Your task to perform on an android device: open the mobile data screen to see how much data has been used Image 0: 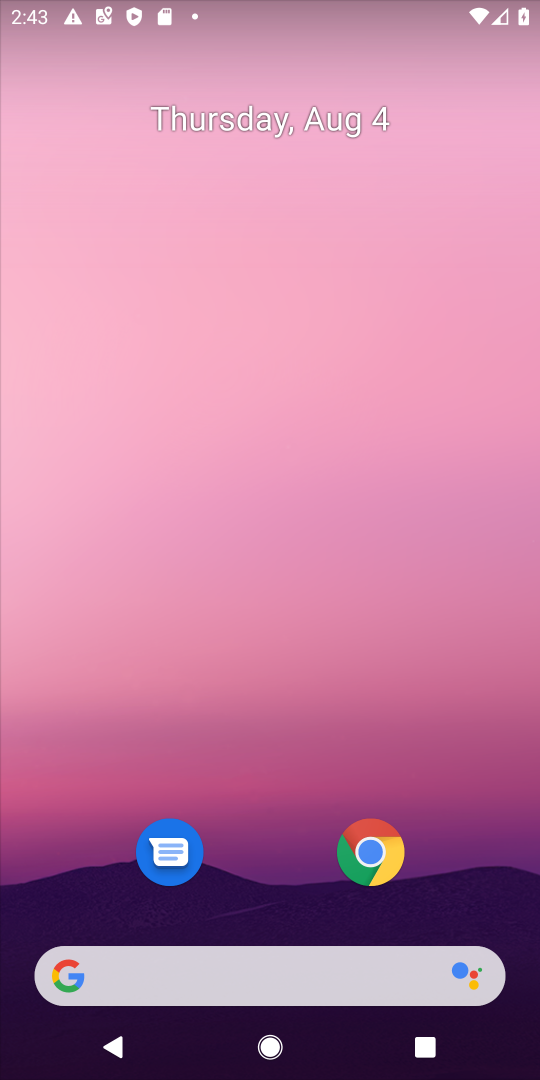
Step 0: drag from (279, 823) to (409, 64)
Your task to perform on an android device: open the mobile data screen to see how much data has been used Image 1: 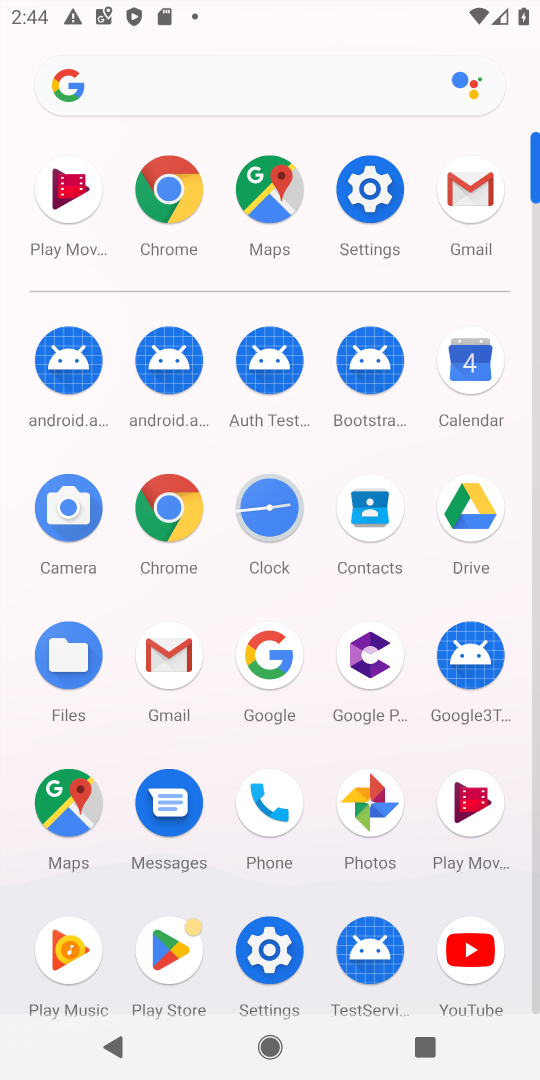
Step 1: click (359, 193)
Your task to perform on an android device: open the mobile data screen to see how much data has been used Image 2: 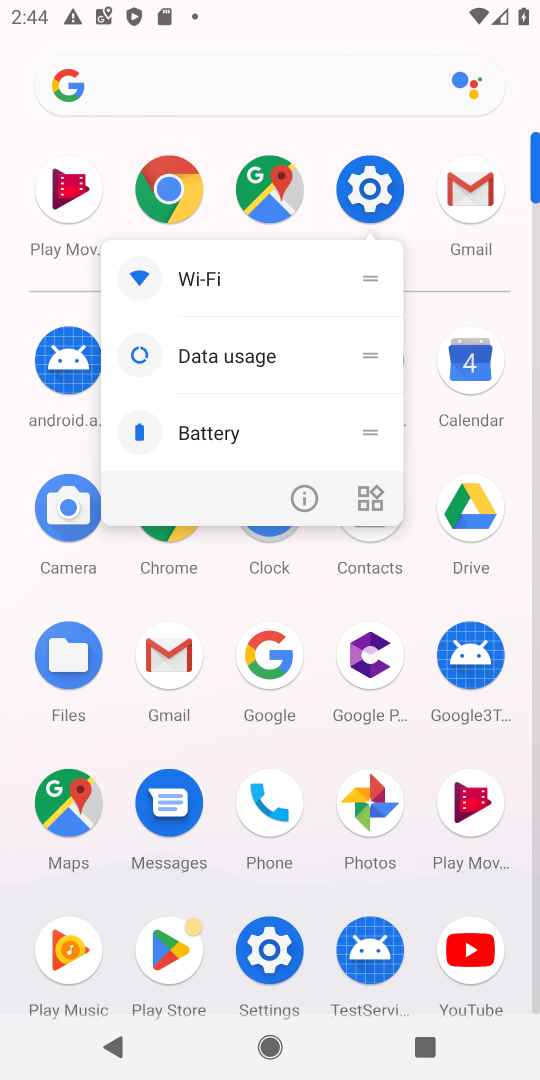
Step 2: click (373, 180)
Your task to perform on an android device: open the mobile data screen to see how much data has been used Image 3: 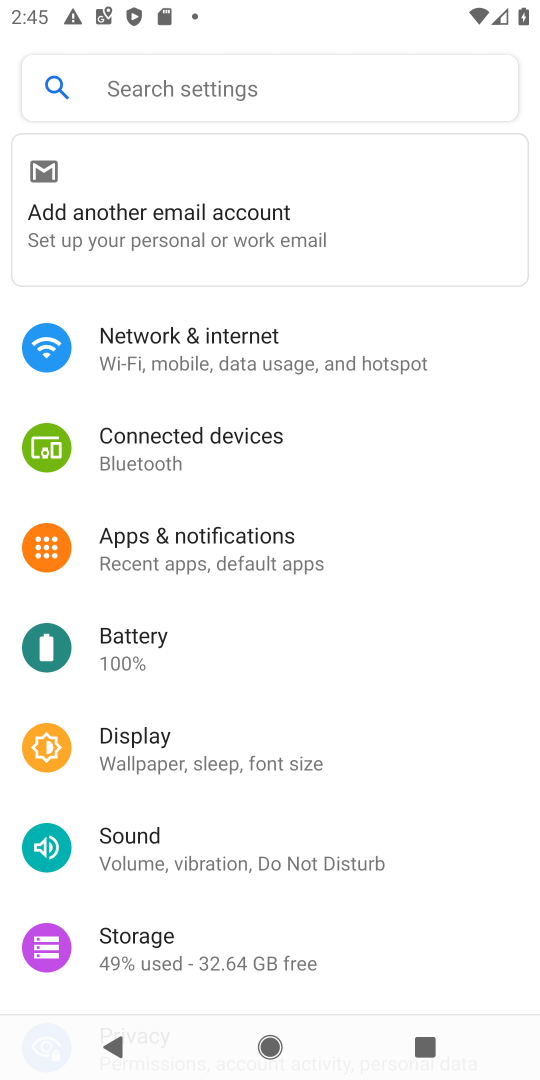
Step 3: click (223, 352)
Your task to perform on an android device: open the mobile data screen to see how much data has been used Image 4: 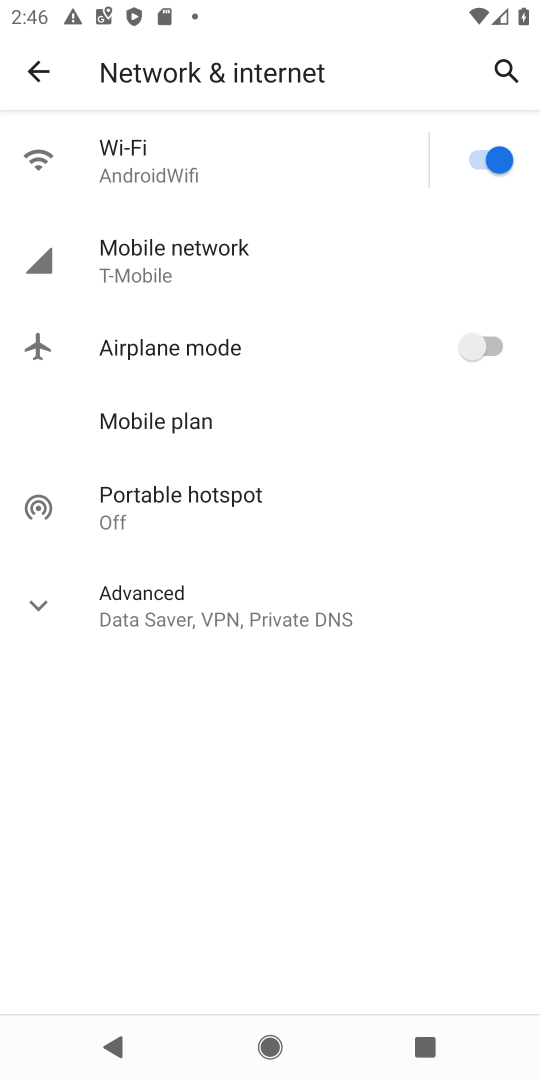
Step 4: click (202, 617)
Your task to perform on an android device: open the mobile data screen to see how much data has been used Image 5: 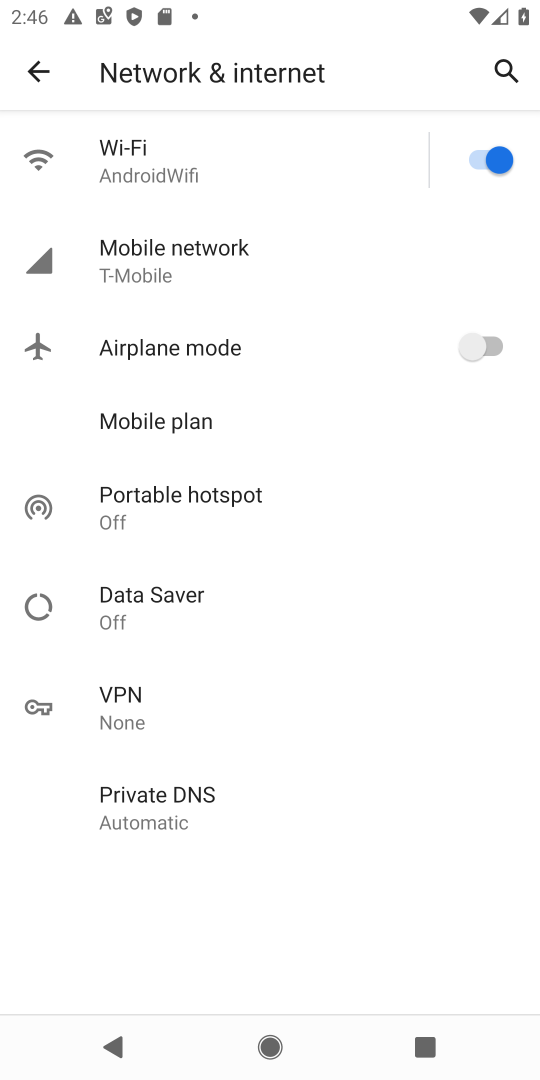
Step 5: click (157, 256)
Your task to perform on an android device: open the mobile data screen to see how much data has been used Image 6: 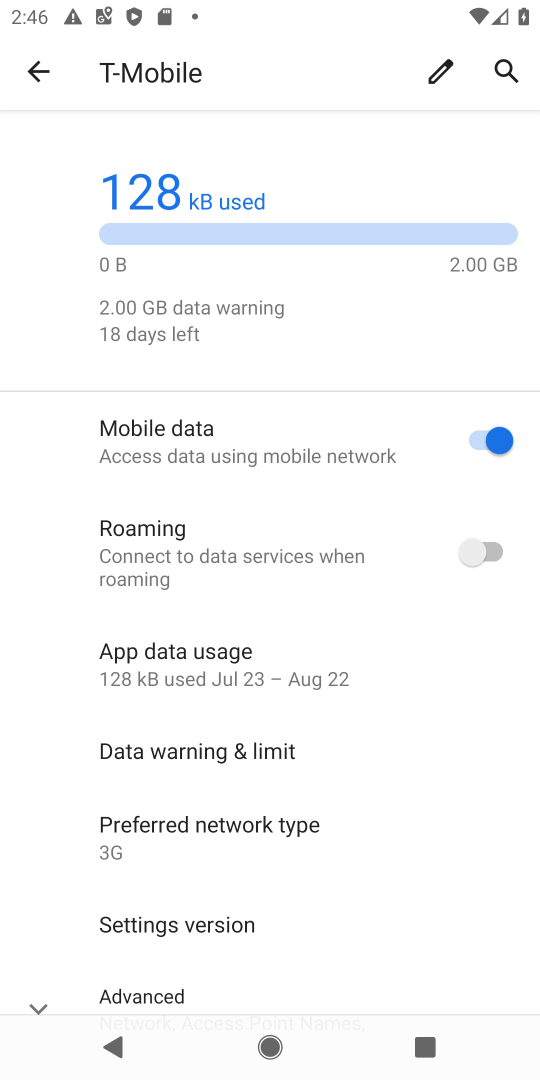
Step 6: click (241, 652)
Your task to perform on an android device: open the mobile data screen to see how much data has been used Image 7: 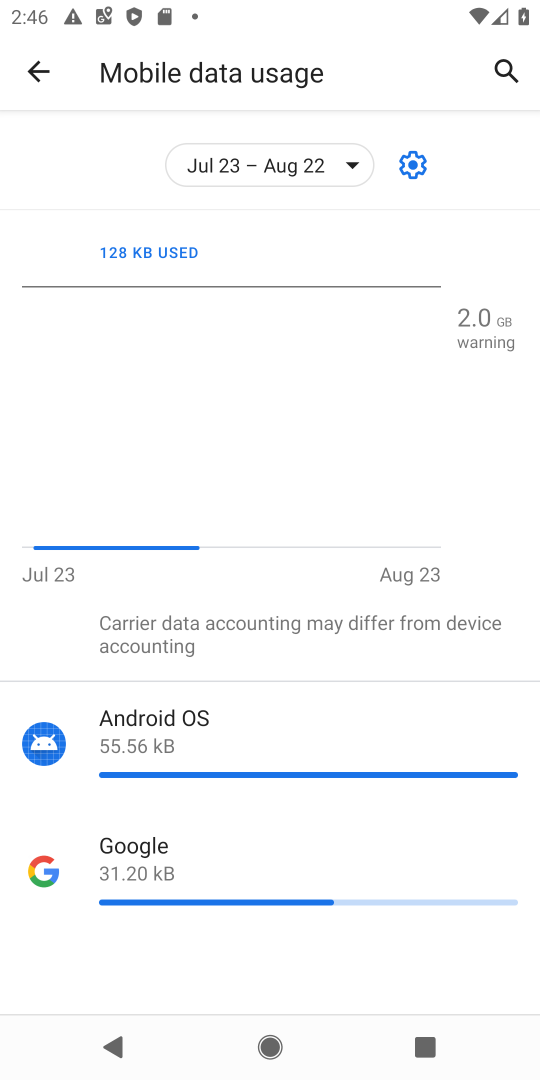
Step 7: task complete